Your task to perform on an android device: change notifications settings Image 0: 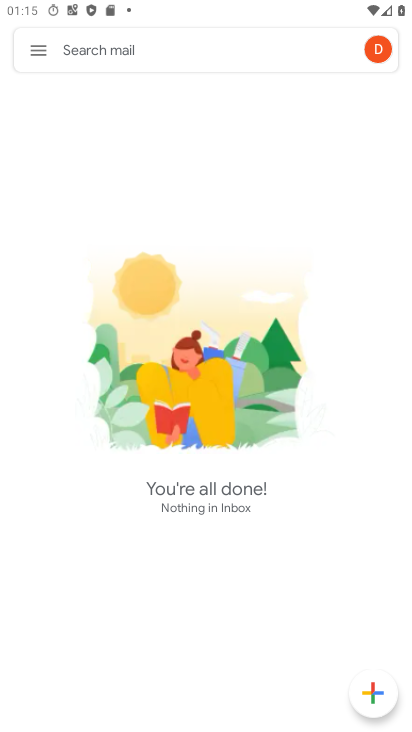
Step 0: press home button
Your task to perform on an android device: change notifications settings Image 1: 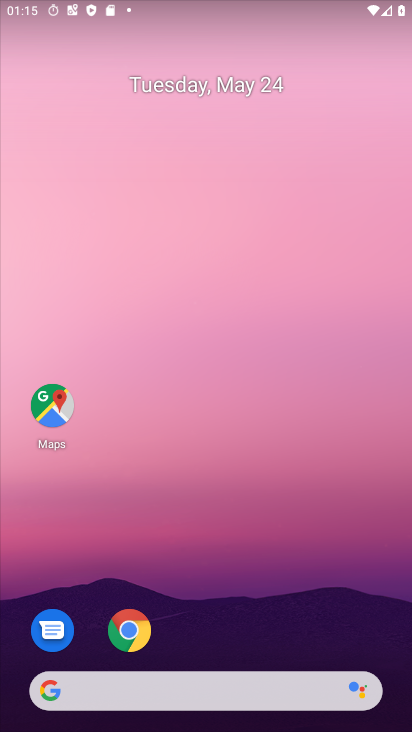
Step 1: drag from (224, 655) to (228, 3)
Your task to perform on an android device: change notifications settings Image 2: 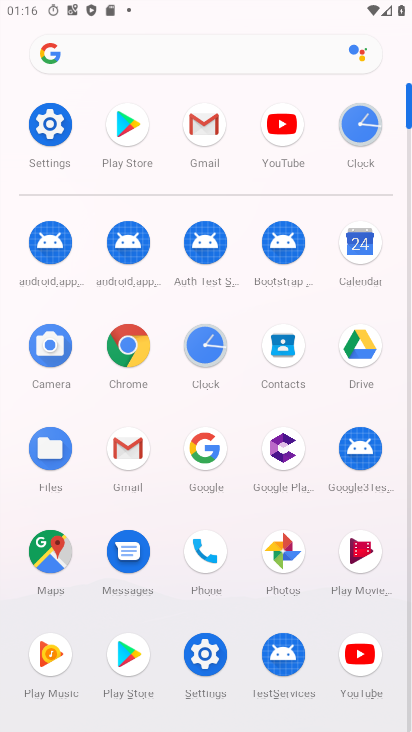
Step 2: click (51, 126)
Your task to perform on an android device: change notifications settings Image 3: 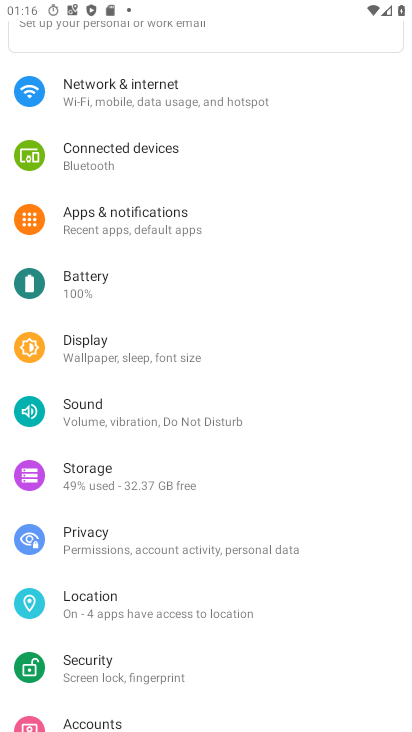
Step 3: click (121, 228)
Your task to perform on an android device: change notifications settings Image 4: 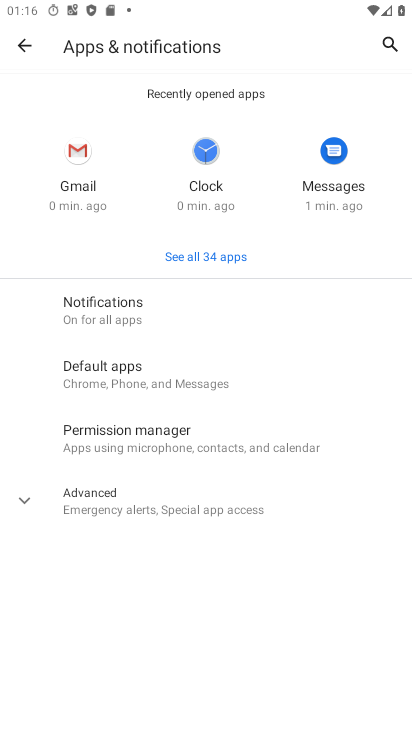
Step 4: click (93, 307)
Your task to perform on an android device: change notifications settings Image 5: 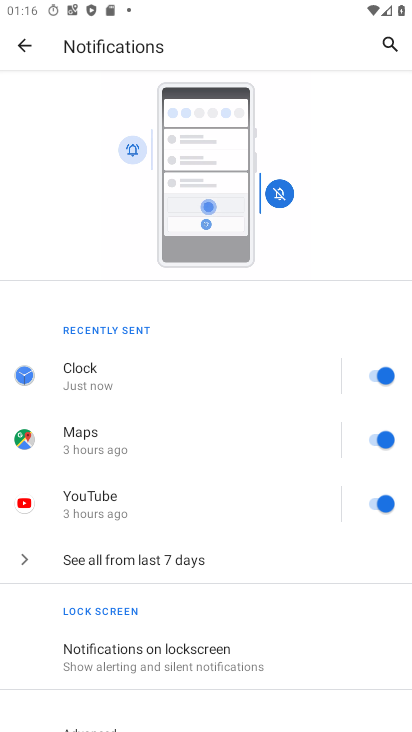
Step 5: click (130, 559)
Your task to perform on an android device: change notifications settings Image 6: 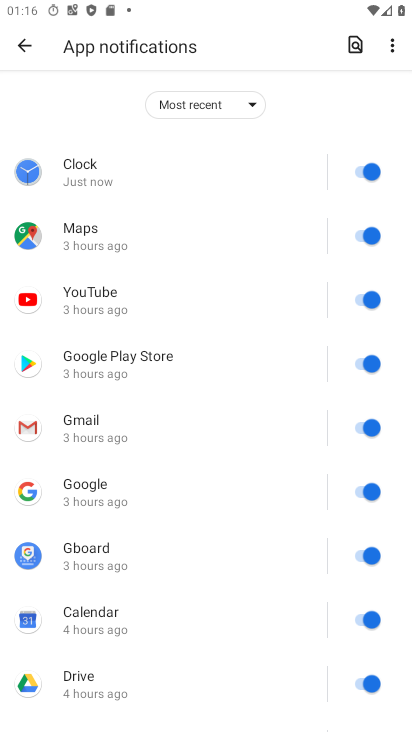
Step 6: click (259, 101)
Your task to perform on an android device: change notifications settings Image 7: 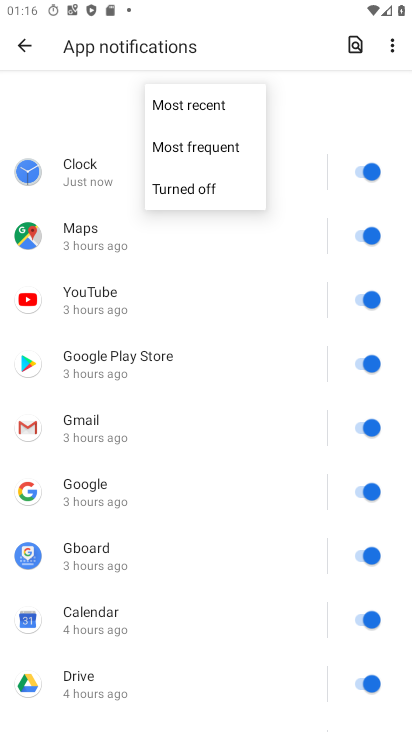
Step 7: click (162, 155)
Your task to perform on an android device: change notifications settings Image 8: 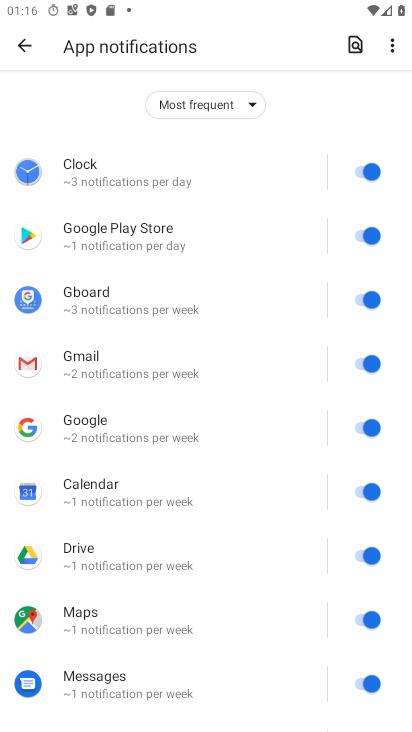
Step 8: task complete